Your task to perform on an android device: open app "Google Home" Image 0: 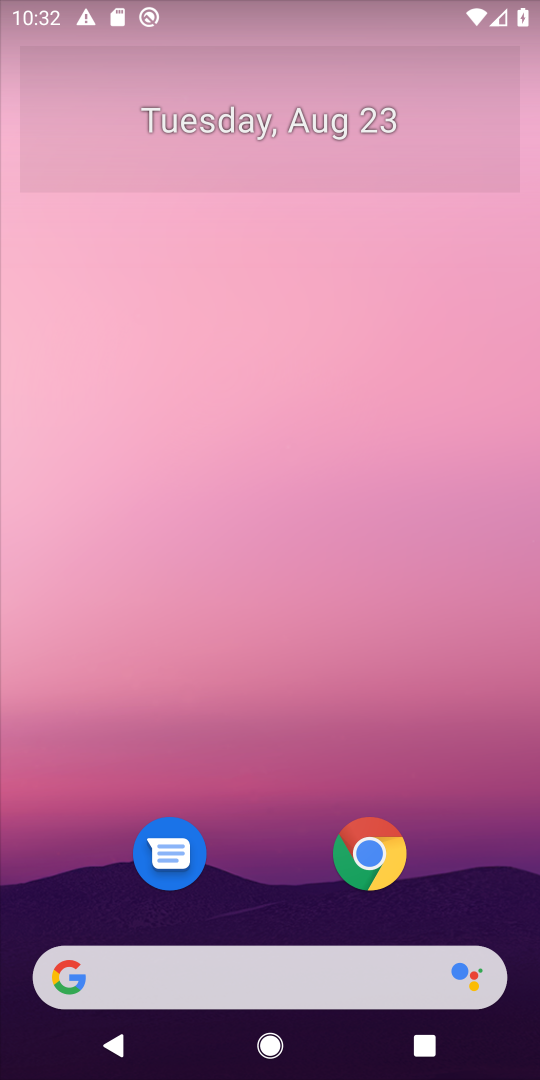
Step 0: drag from (314, 916) to (478, 6)
Your task to perform on an android device: open app "Google Home" Image 1: 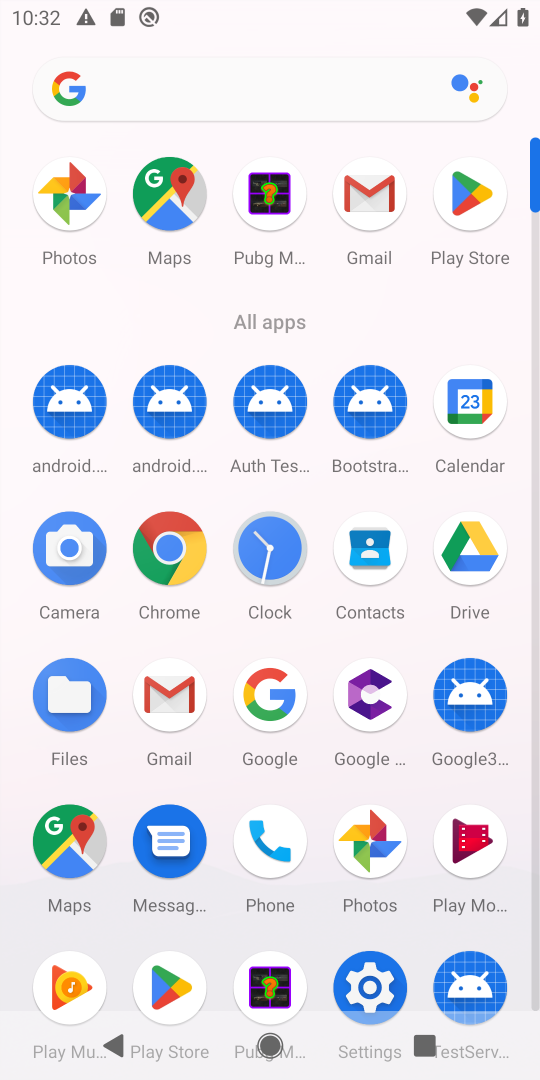
Step 1: click (465, 200)
Your task to perform on an android device: open app "Google Home" Image 2: 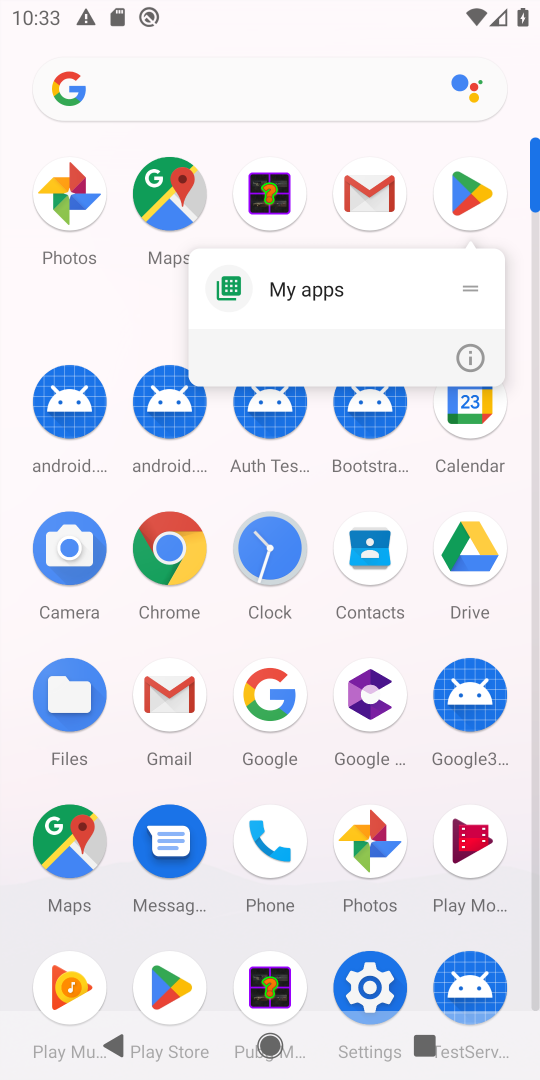
Step 2: click (464, 197)
Your task to perform on an android device: open app "Google Home" Image 3: 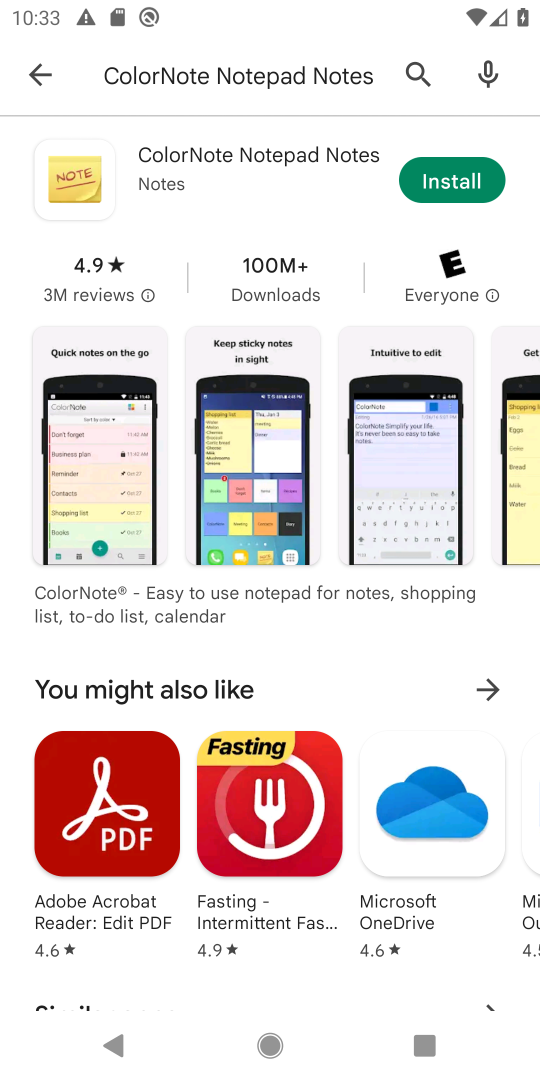
Step 3: press back button
Your task to perform on an android device: open app "Google Home" Image 4: 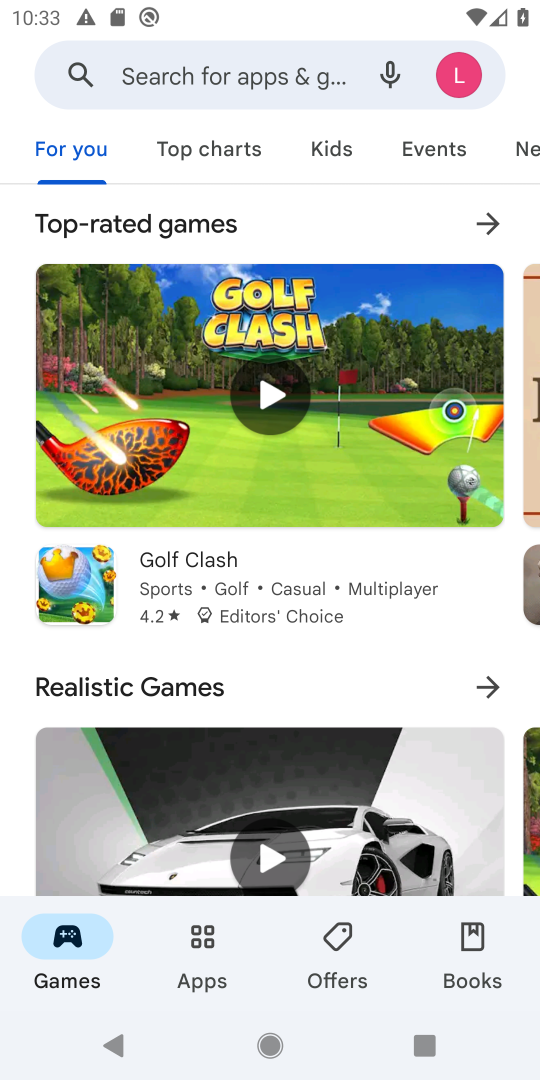
Step 4: click (298, 63)
Your task to perform on an android device: open app "Google Home" Image 5: 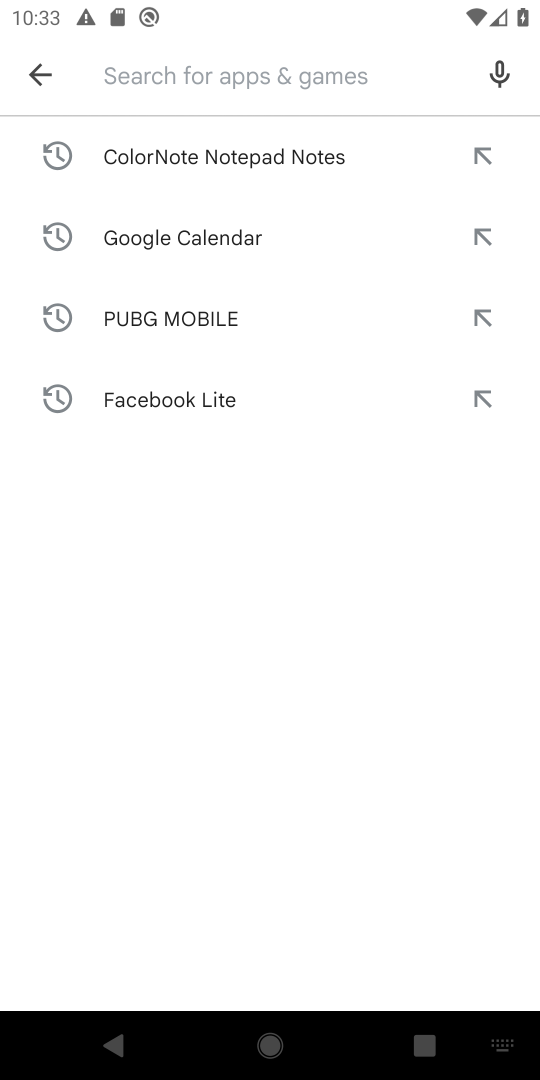
Step 5: type "Google Home"
Your task to perform on an android device: open app "Google Home" Image 6: 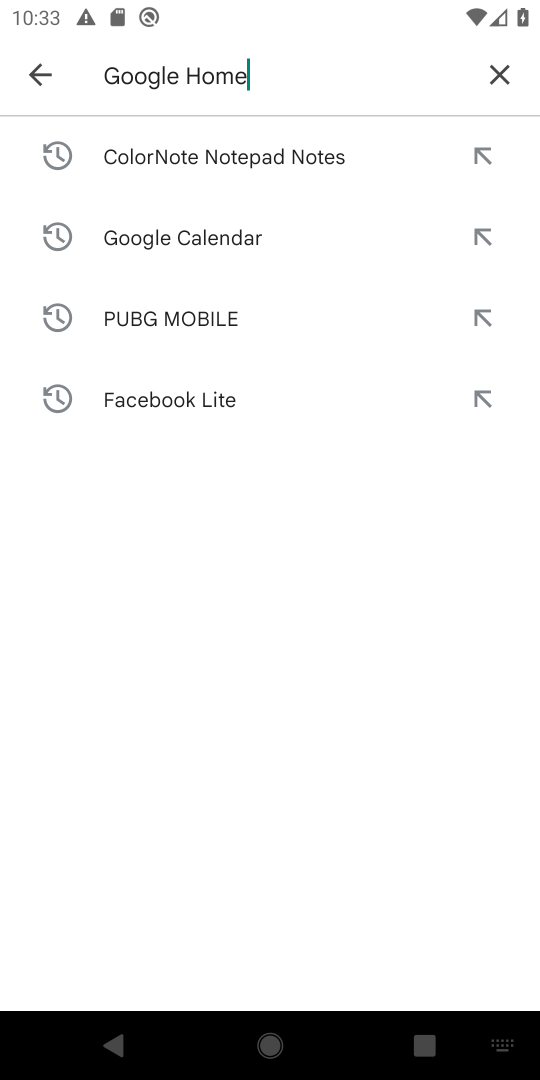
Step 6: press enter
Your task to perform on an android device: open app "Google Home" Image 7: 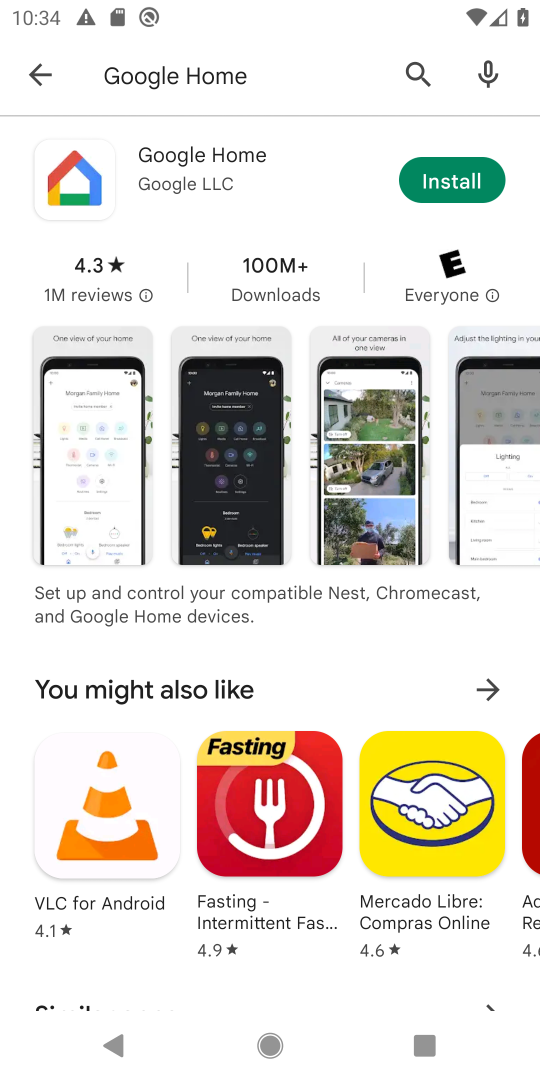
Step 7: task complete